Your task to perform on an android device: change notifications settings Image 0: 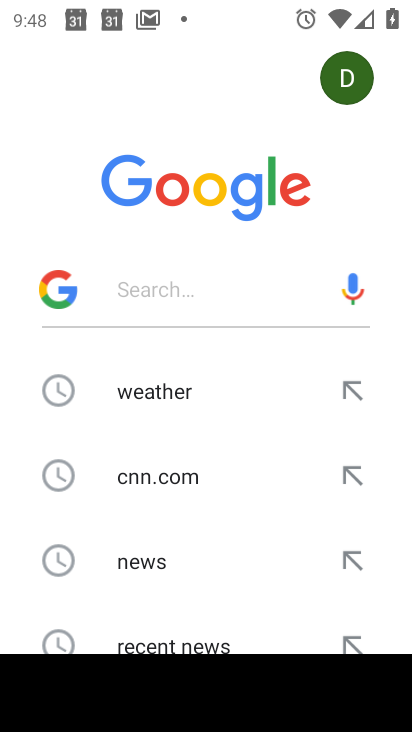
Step 0: press back button
Your task to perform on an android device: change notifications settings Image 1: 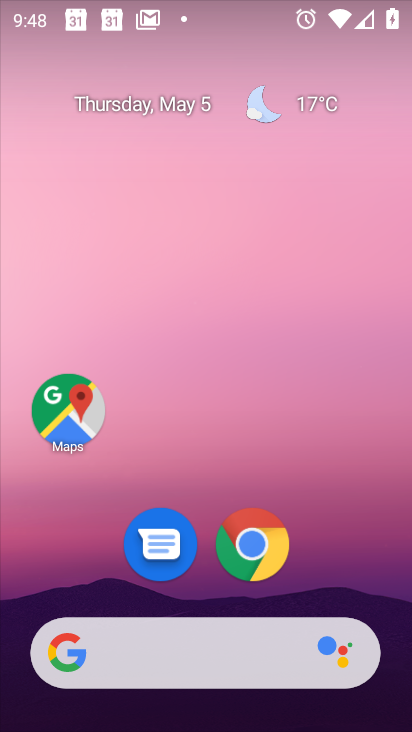
Step 1: drag from (330, 542) to (310, 16)
Your task to perform on an android device: change notifications settings Image 2: 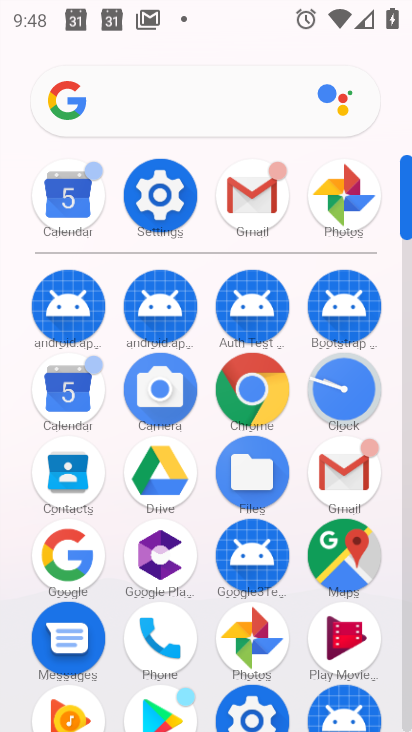
Step 2: click (180, 196)
Your task to perform on an android device: change notifications settings Image 3: 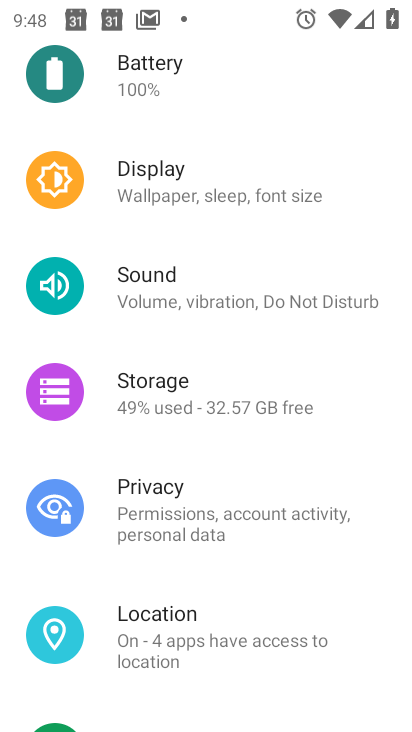
Step 3: drag from (238, 517) to (229, 716)
Your task to perform on an android device: change notifications settings Image 4: 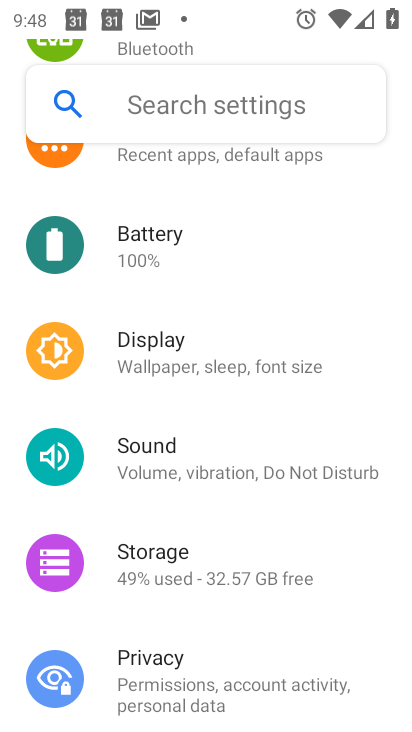
Step 4: drag from (245, 269) to (270, 582)
Your task to perform on an android device: change notifications settings Image 5: 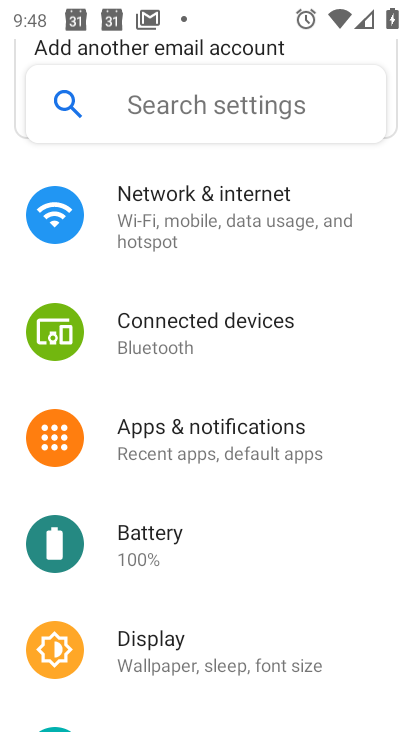
Step 5: click (242, 387)
Your task to perform on an android device: change notifications settings Image 6: 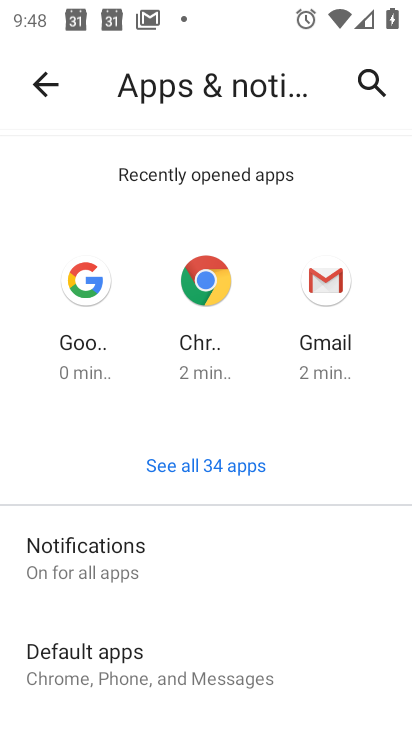
Step 6: task complete